Your task to perform on an android device: turn off sleep mode Image 0: 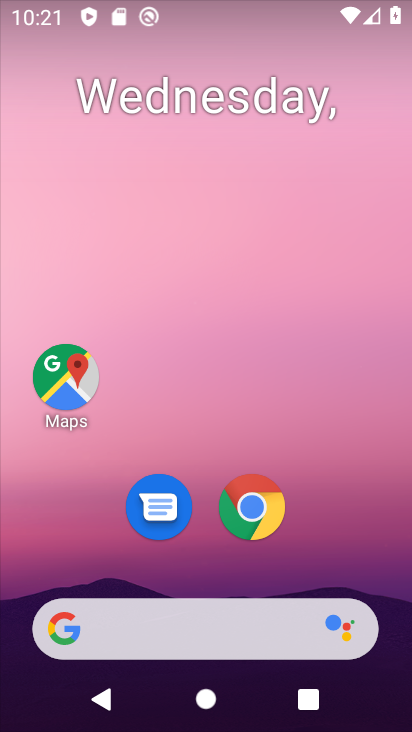
Step 0: drag from (280, 579) to (350, 105)
Your task to perform on an android device: turn off sleep mode Image 1: 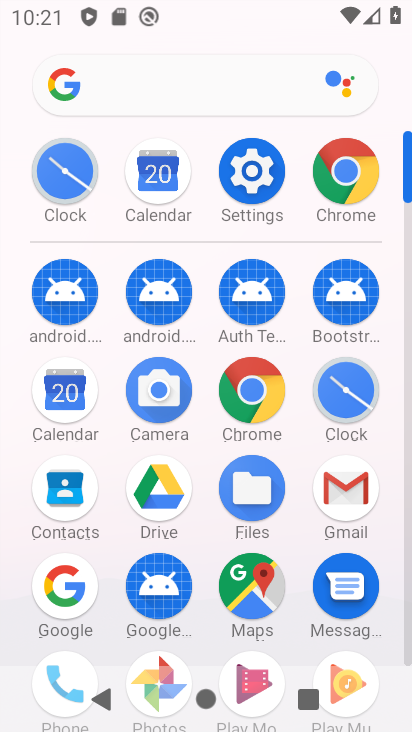
Step 1: click (262, 148)
Your task to perform on an android device: turn off sleep mode Image 2: 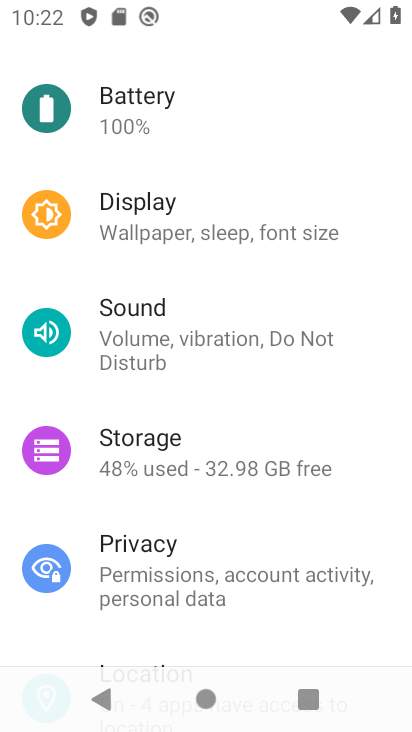
Step 2: drag from (161, 193) to (117, 502)
Your task to perform on an android device: turn off sleep mode Image 3: 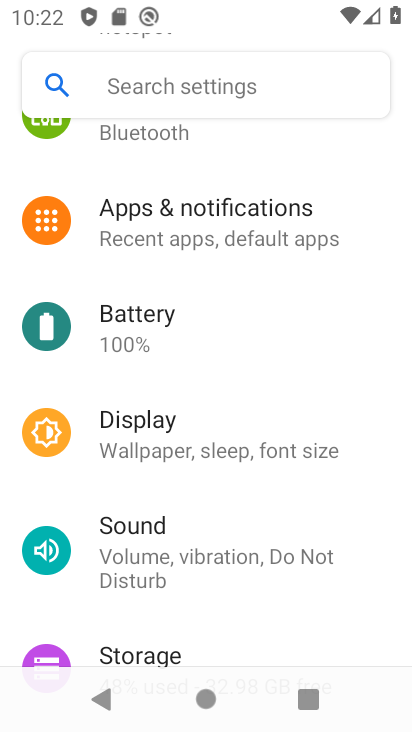
Step 3: drag from (177, 135) to (204, 371)
Your task to perform on an android device: turn off sleep mode Image 4: 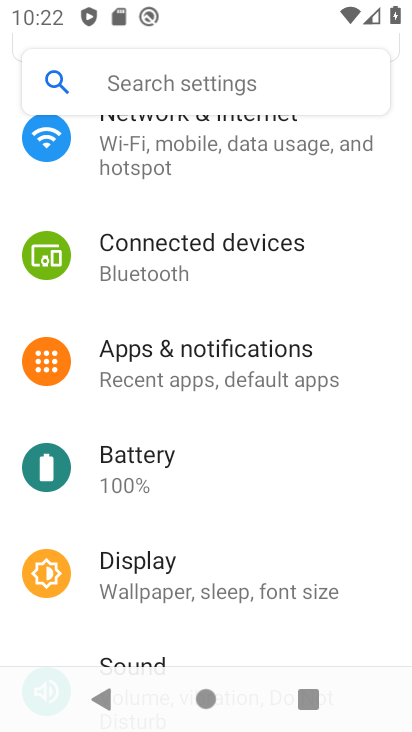
Step 4: drag from (157, 226) to (169, 395)
Your task to perform on an android device: turn off sleep mode Image 5: 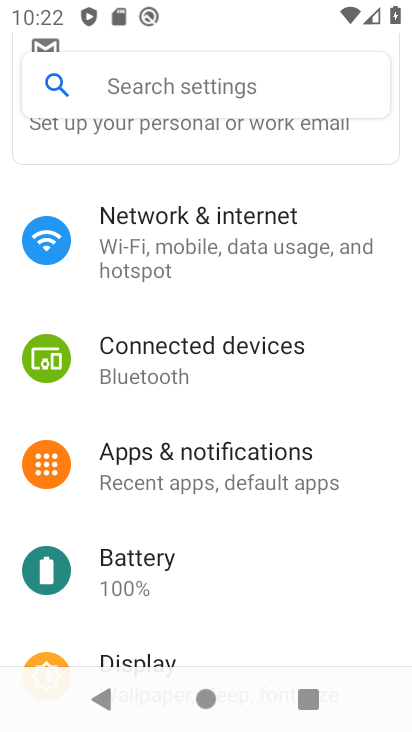
Step 5: drag from (165, 154) to (171, 260)
Your task to perform on an android device: turn off sleep mode Image 6: 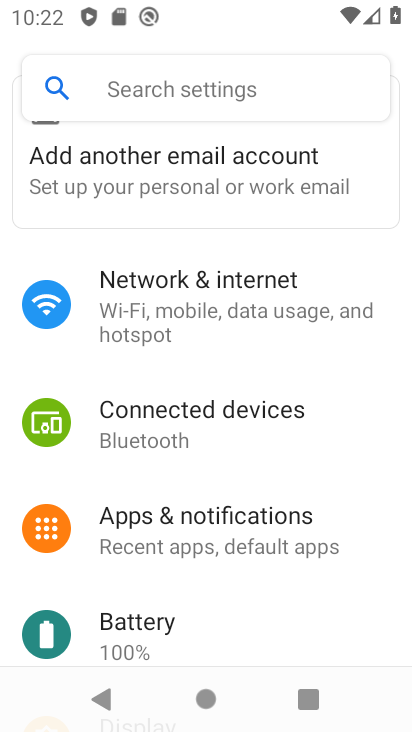
Step 6: click (176, 81)
Your task to perform on an android device: turn off sleep mode Image 7: 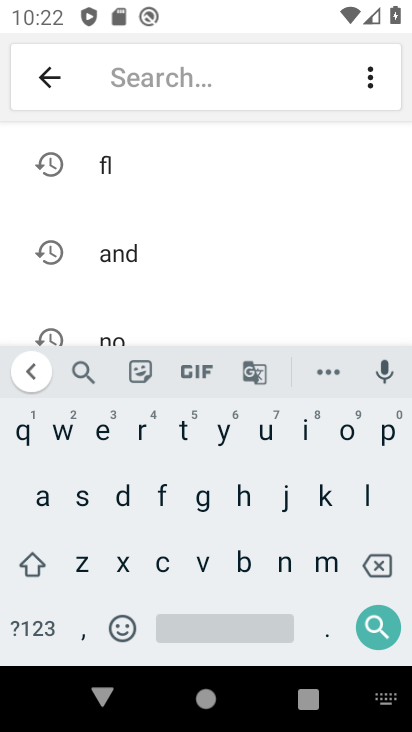
Step 7: click (83, 505)
Your task to perform on an android device: turn off sleep mode Image 8: 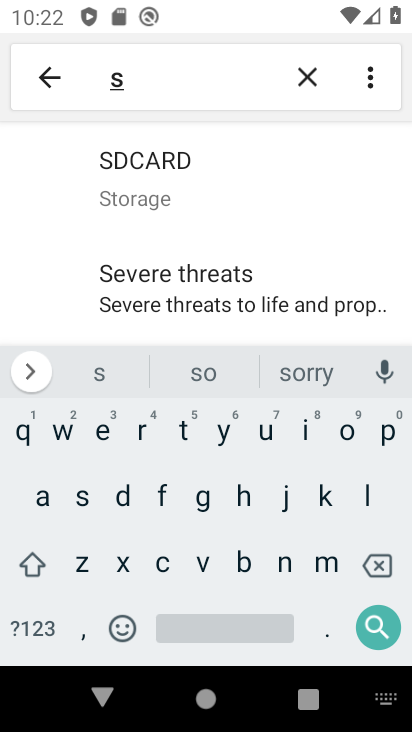
Step 8: click (362, 491)
Your task to perform on an android device: turn off sleep mode Image 9: 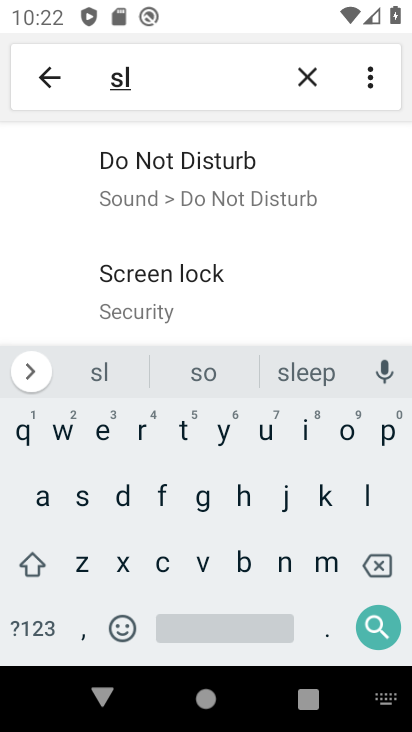
Step 9: click (219, 197)
Your task to perform on an android device: turn off sleep mode Image 10: 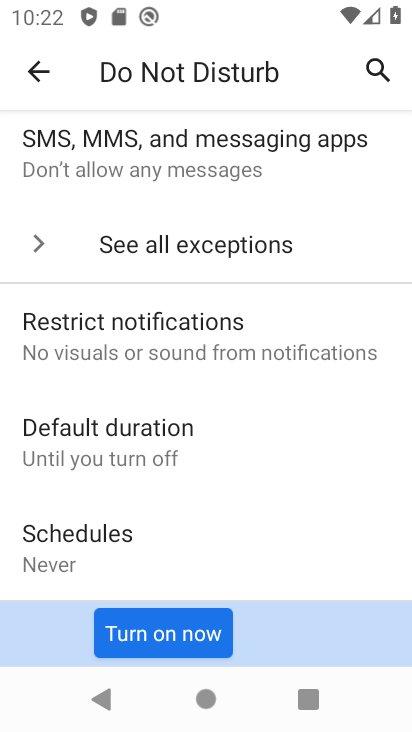
Step 10: click (146, 646)
Your task to perform on an android device: turn off sleep mode Image 11: 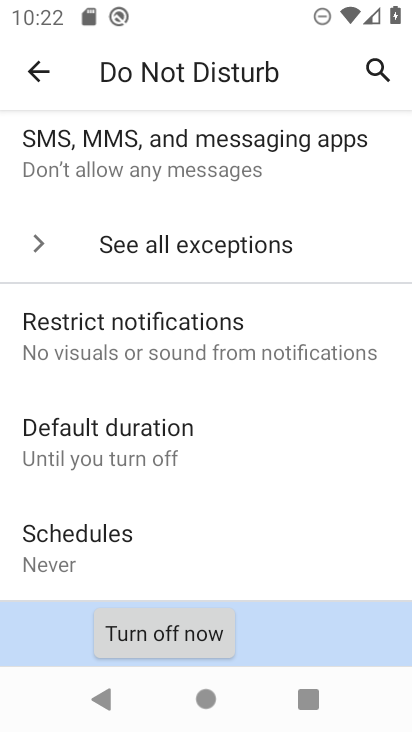
Step 11: click (150, 643)
Your task to perform on an android device: turn off sleep mode Image 12: 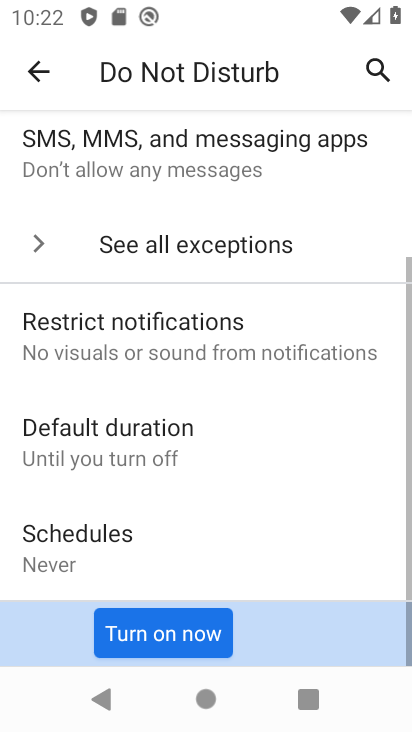
Step 12: task complete